Your task to perform on an android device: delete browsing data in the chrome app Image 0: 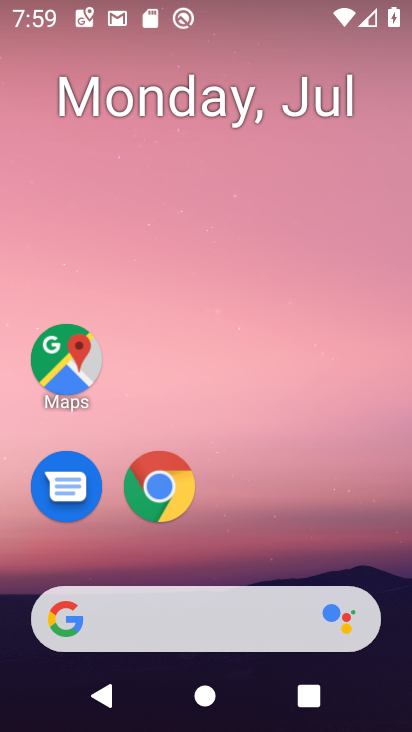
Step 0: drag from (361, 563) to (353, 161)
Your task to perform on an android device: delete browsing data in the chrome app Image 1: 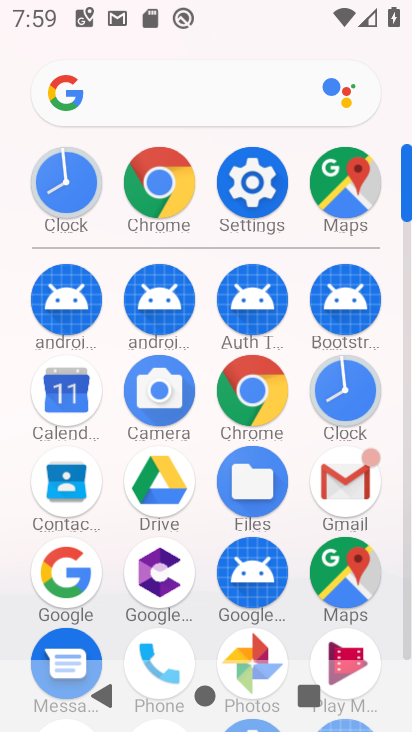
Step 1: click (255, 389)
Your task to perform on an android device: delete browsing data in the chrome app Image 2: 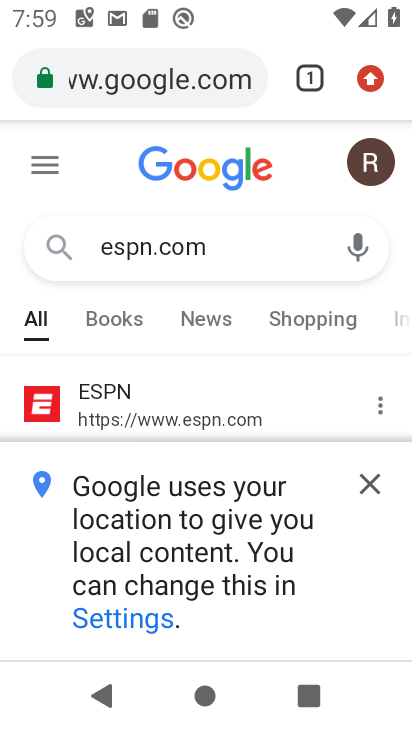
Step 2: click (367, 77)
Your task to perform on an android device: delete browsing data in the chrome app Image 3: 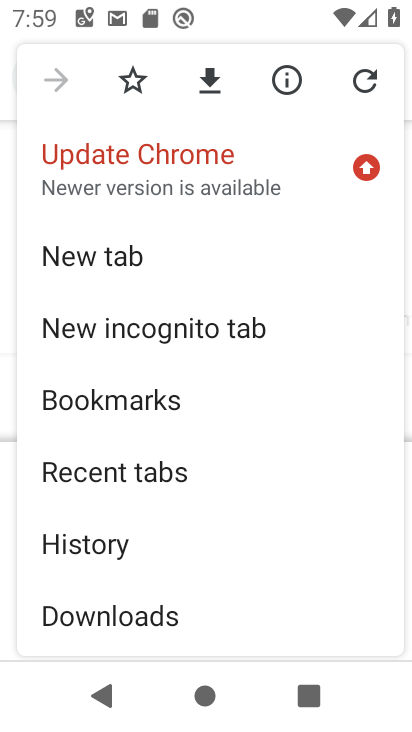
Step 3: drag from (315, 502) to (321, 405)
Your task to perform on an android device: delete browsing data in the chrome app Image 4: 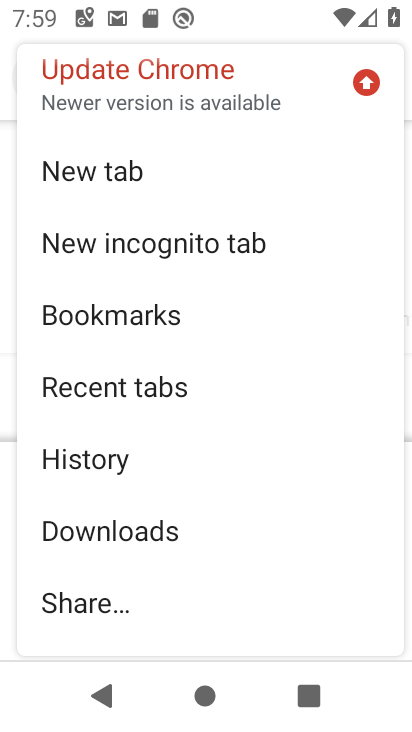
Step 4: drag from (326, 522) to (332, 407)
Your task to perform on an android device: delete browsing data in the chrome app Image 5: 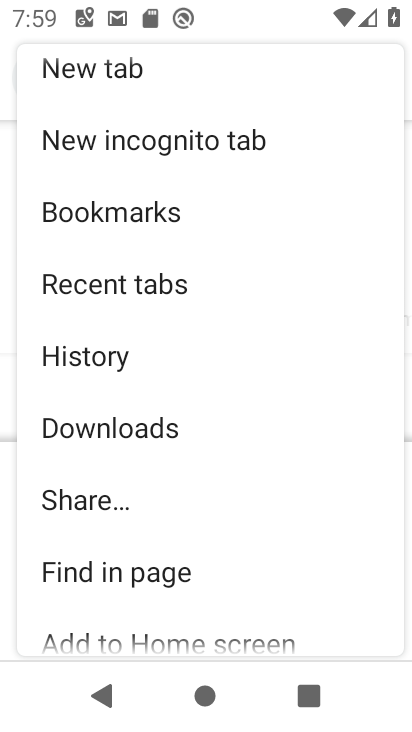
Step 5: drag from (322, 506) to (308, 268)
Your task to perform on an android device: delete browsing data in the chrome app Image 6: 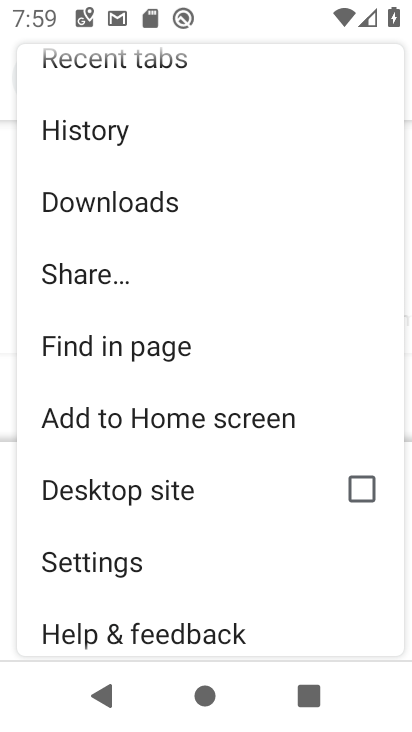
Step 6: click (193, 568)
Your task to perform on an android device: delete browsing data in the chrome app Image 7: 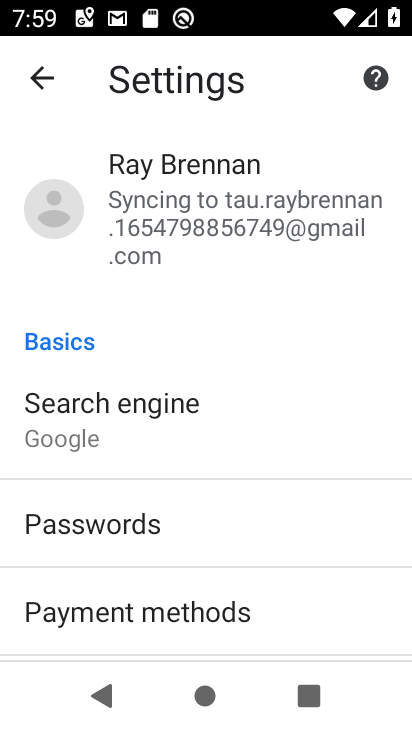
Step 7: drag from (292, 554) to (291, 329)
Your task to perform on an android device: delete browsing data in the chrome app Image 8: 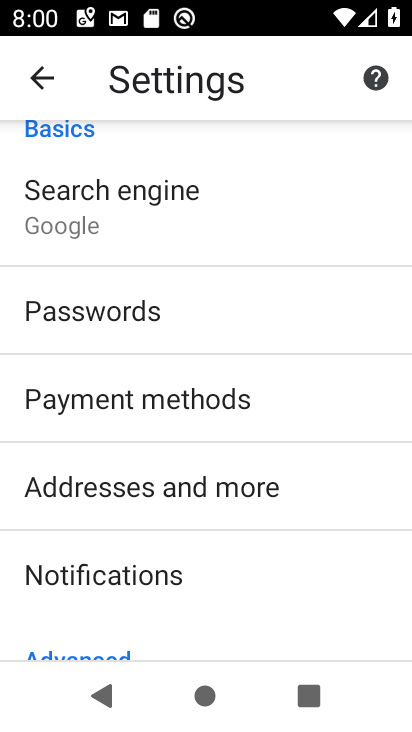
Step 8: drag from (325, 530) to (324, 319)
Your task to perform on an android device: delete browsing data in the chrome app Image 9: 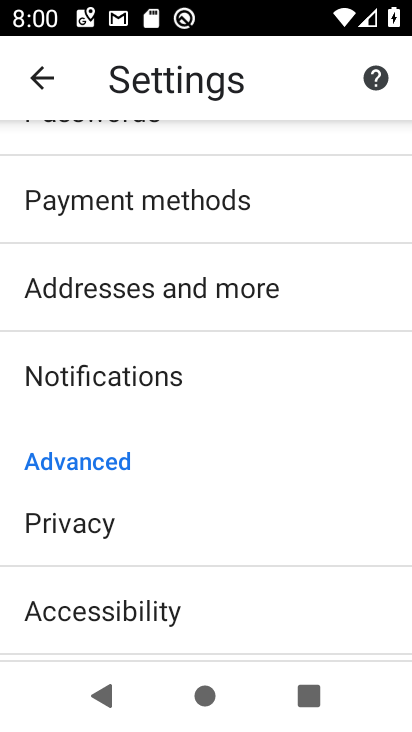
Step 9: drag from (320, 487) to (314, 282)
Your task to perform on an android device: delete browsing data in the chrome app Image 10: 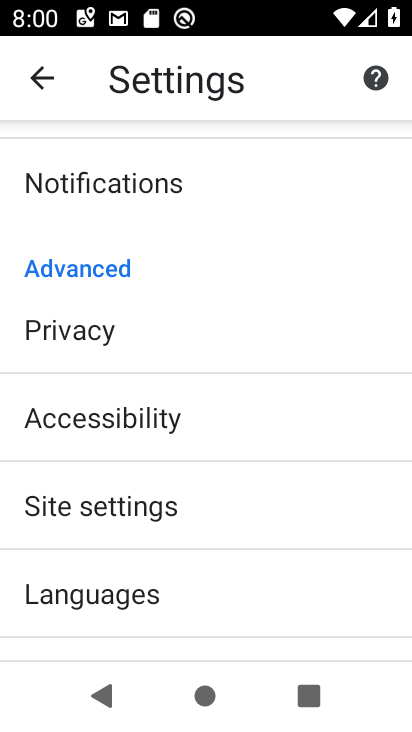
Step 10: click (319, 340)
Your task to perform on an android device: delete browsing data in the chrome app Image 11: 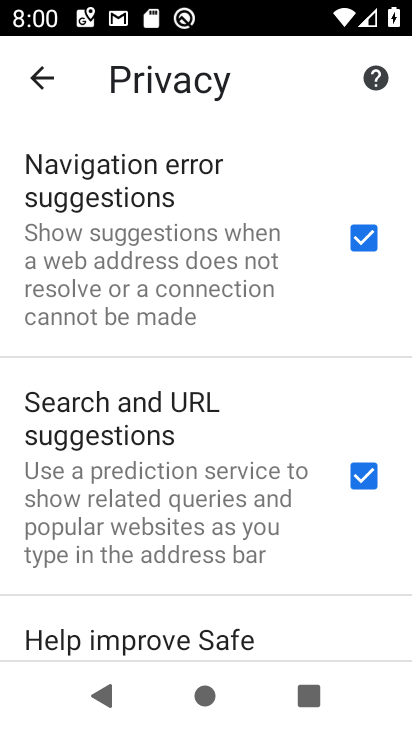
Step 11: drag from (321, 428) to (318, 309)
Your task to perform on an android device: delete browsing data in the chrome app Image 12: 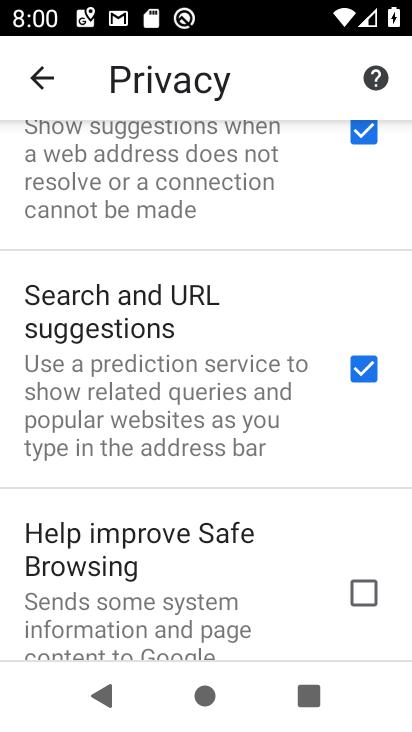
Step 12: drag from (309, 484) to (308, 373)
Your task to perform on an android device: delete browsing data in the chrome app Image 13: 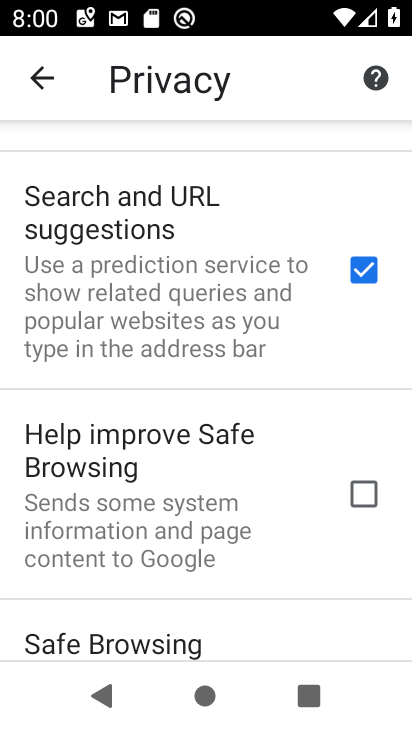
Step 13: drag from (287, 491) to (287, 377)
Your task to perform on an android device: delete browsing data in the chrome app Image 14: 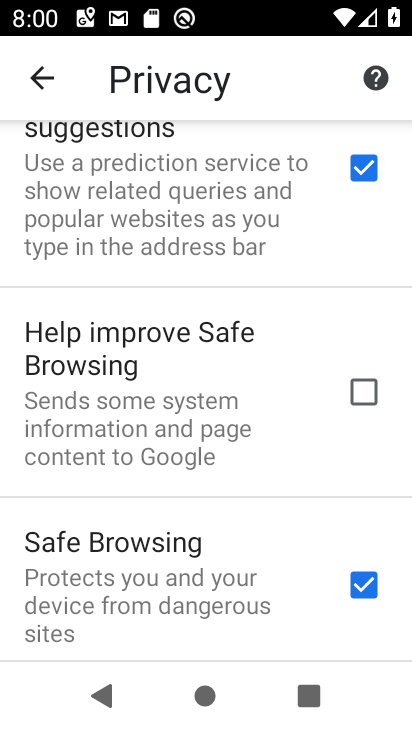
Step 14: drag from (285, 490) to (285, 384)
Your task to perform on an android device: delete browsing data in the chrome app Image 15: 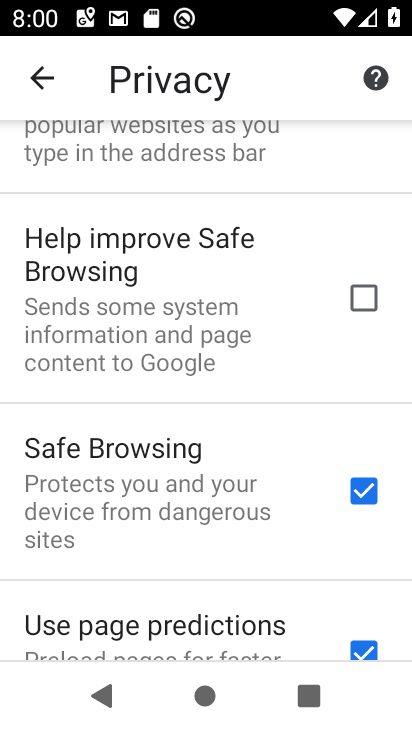
Step 15: drag from (284, 483) to (287, 355)
Your task to perform on an android device: delete browsing data in the chrome app Image 16: 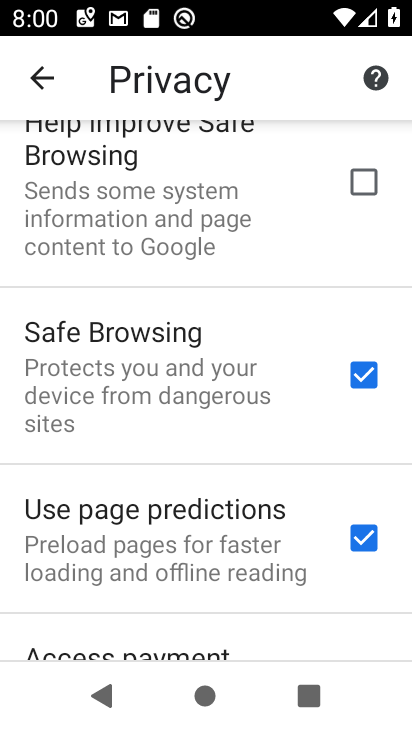
Step 16: drag from (299, 481) to (302, 385)
Your task to perform on an android device: delete browsing data in the chrome app Image 17: 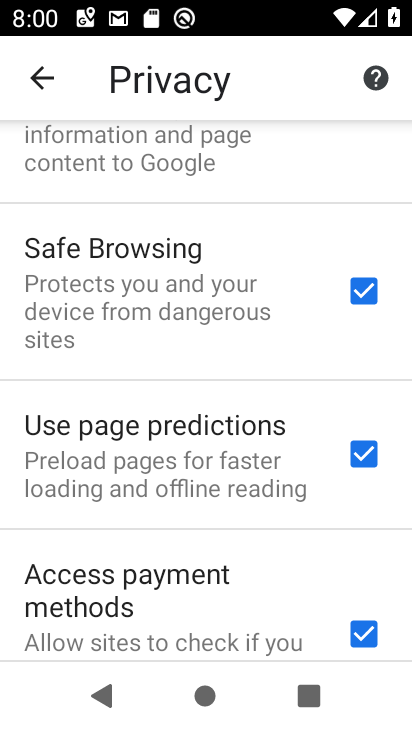
Step 17: drag from (291, 554) to (296, 425)
Your task to perform on an android device: delete browsing data in the chrome app Image 18: 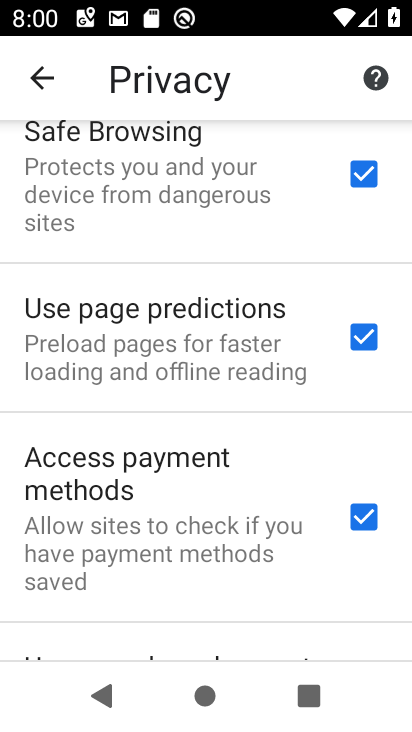
Step 18: drag from (283, 559) to (285, 404)
Your task to perform on an android device: delete browsing data in the chrome app Image 19: 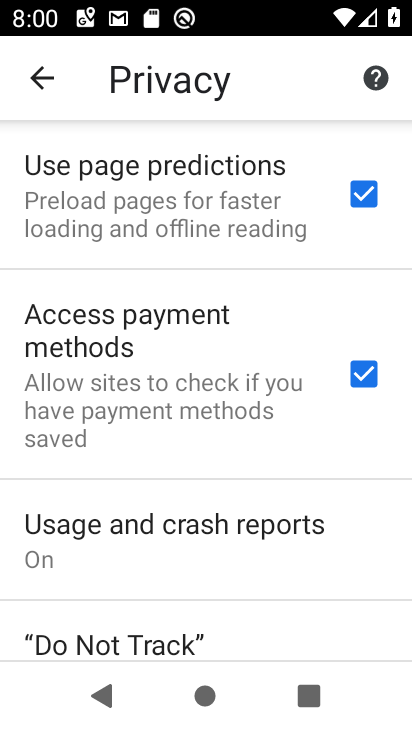
Step 19: drag from (303, 552) to (300, 223)
Your task to perform on an android device: delete browsing data in the chrome app Image 20: 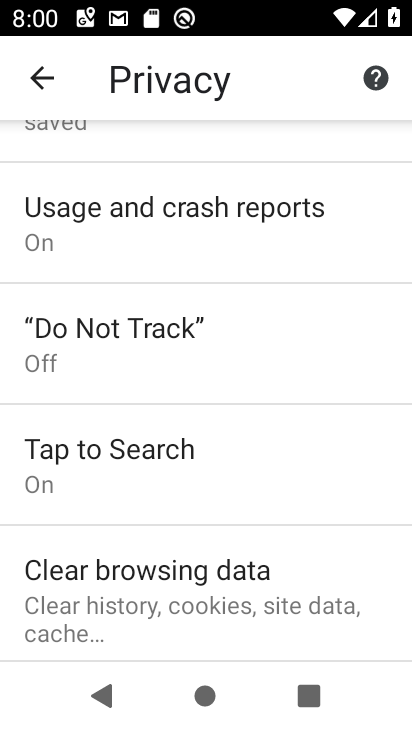
Step 20: click (319, 584)
Your task to perform on an android device: delete browsing data in the chrome app Image 21: 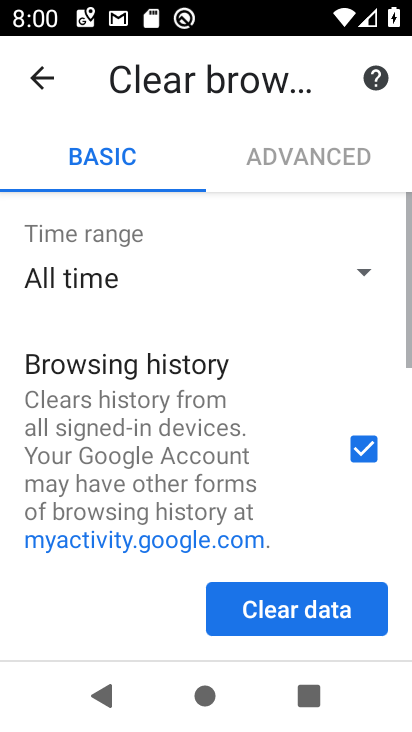
Step 21: click (311, 607)
Your task to perform on an android device: delete browsing data in the chrome app Image 22: 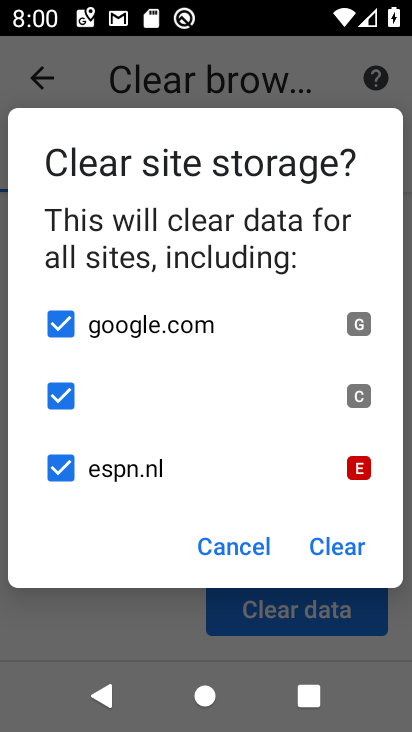
Step 22: click (349, 563)
Your task to perform on an android device: delete browsing data in the chrome app Image 23: 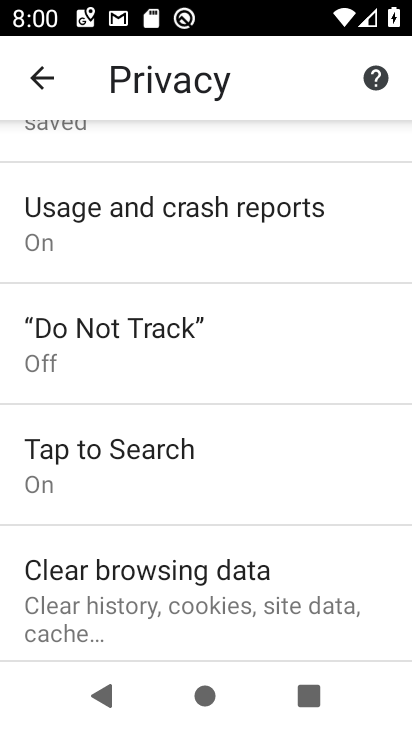
Step 23: task complete